Your task to perform on an android device: Go to battery settings Image 0: 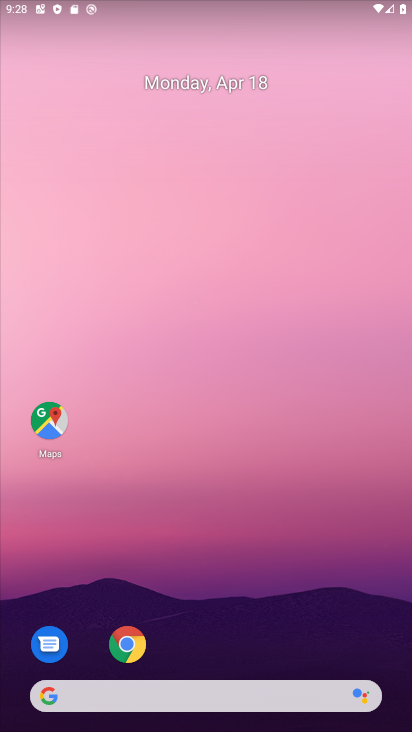
Step 0: drag from (210, 607) to (259, 234)
Your task to perform on an android device: Go to battery settings Image 1: 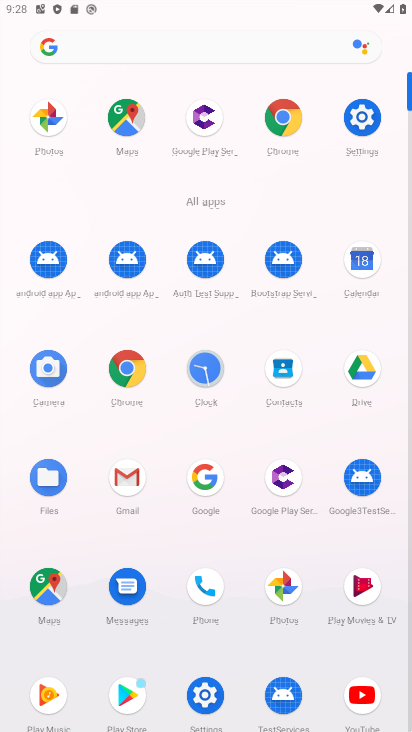
Step 1: click (363, 128)
Your task to perform on an android device: Go to battery settings Image 2: 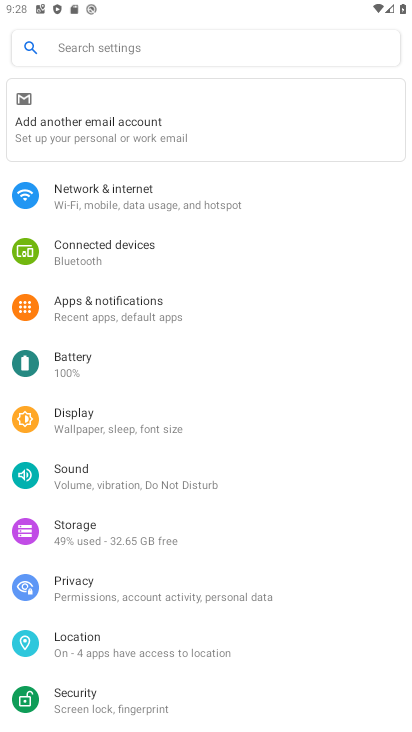
Step 2: click (83, 363)
Your task to perform on an android device: Go to battery settings Image 3: 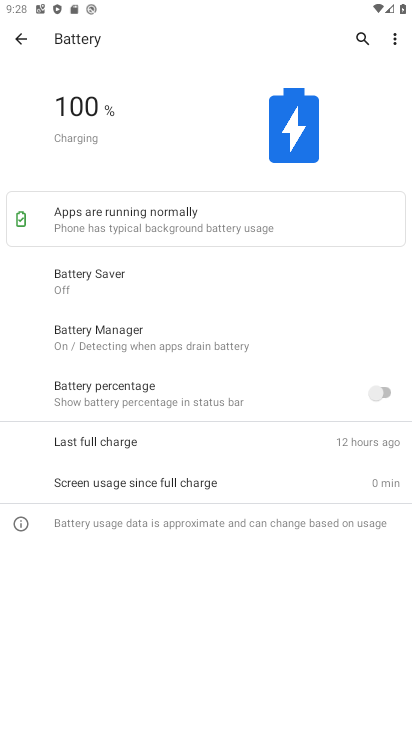
Step 3: task complete